Your task to perform on an android device: turn off priority inbox in the gmail app Image 0: 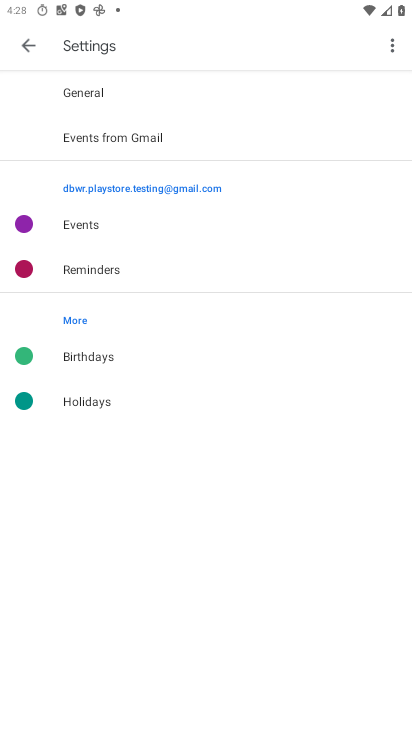
Step 0: press home button
Your task to perform on an android device: turn off priority inbox in the gmail app Image 1: 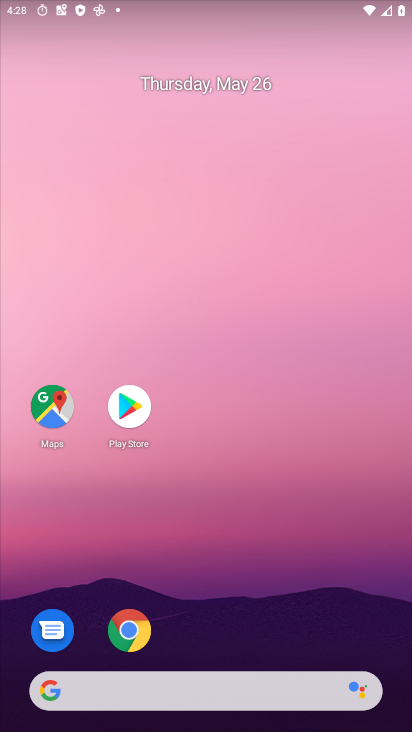
Step 1: drag from (285, 631) to (273, 33)
Your task to perform on an android device: turn off priority inbox in the gmail app Image 2: 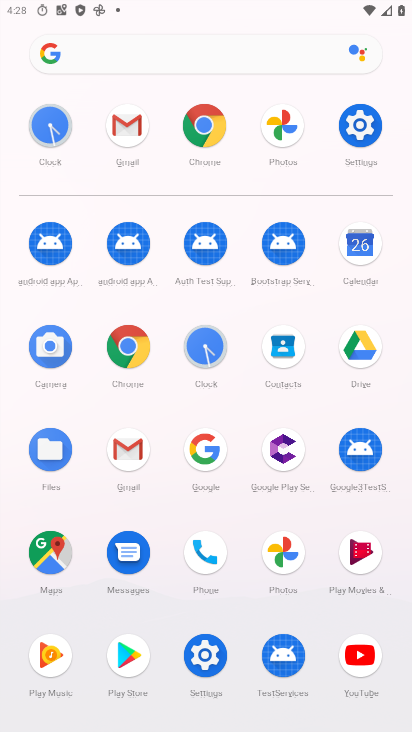
Step 2: click (126, 131)
Your task to perform on an android device: turn off priority inbox in the gmail app Image 3: 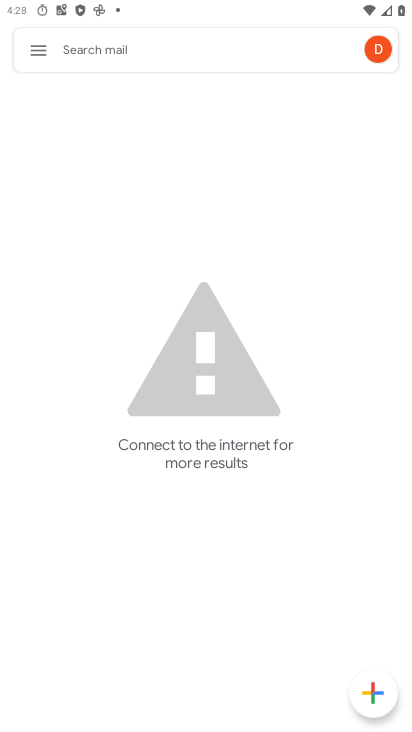
Step 3: click (33, 46)
Your task to perform on an android device: turn off priority inbox in the gmail app Image 4: 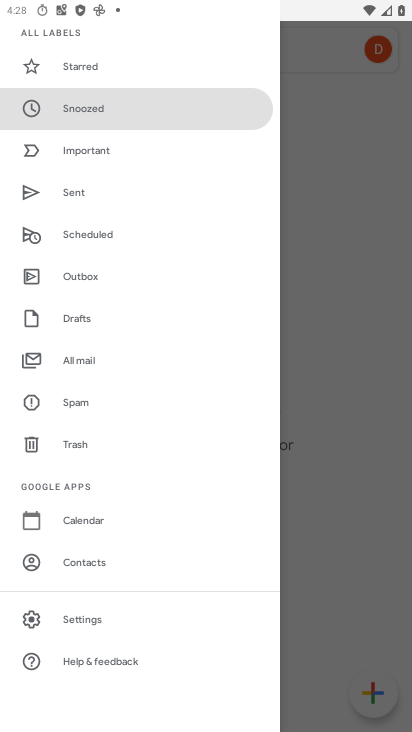
Step 4: click (100, 617)
Your task to perform on an android device: turn off priority inbox in the gmail app Image 5: 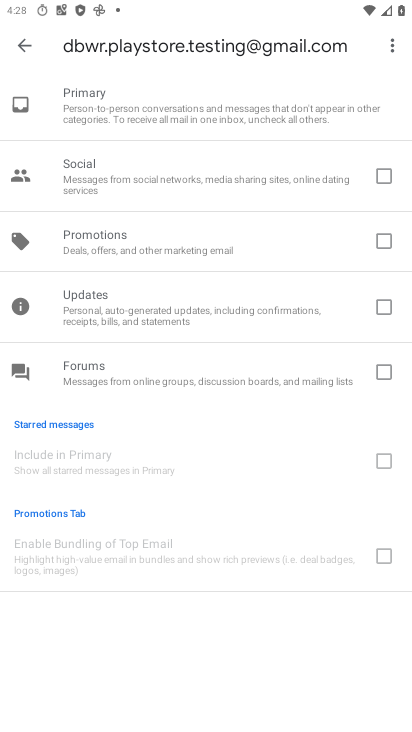
Step 5: click (29, 45)
Your task to perform on an android device: turn off priority inbox in the gmail app Image 6: 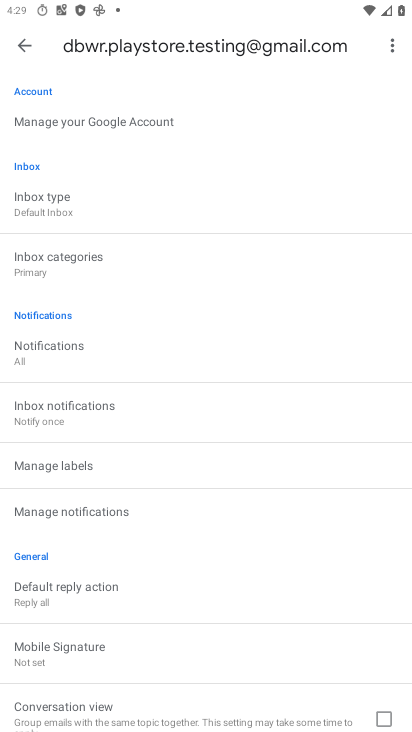
Step 6: task complete